Your task to perform on an android device: snooze an email in the gmail app Image 0: 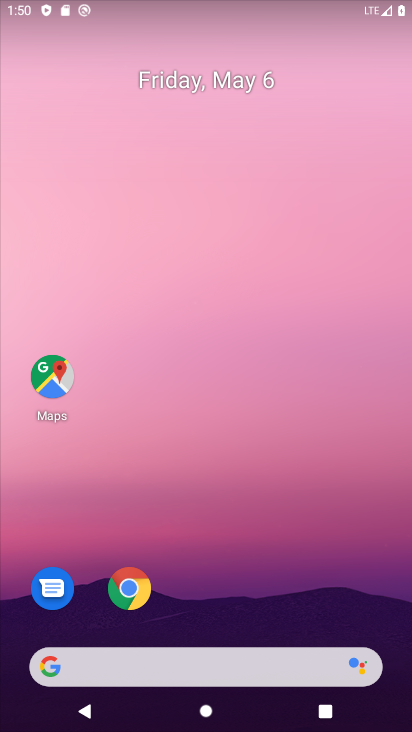
Step 0: drag from (348, 584) to (342, 82)
Your task to perform on an android device: snooze an email in the gmail app Image 1: 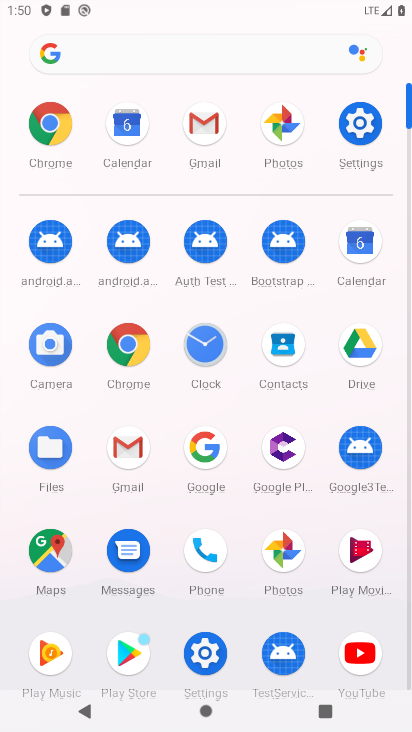
Step 1: click (128, 449)
Your task to perform on an android device: snooze an email in the gmail app Image 2: 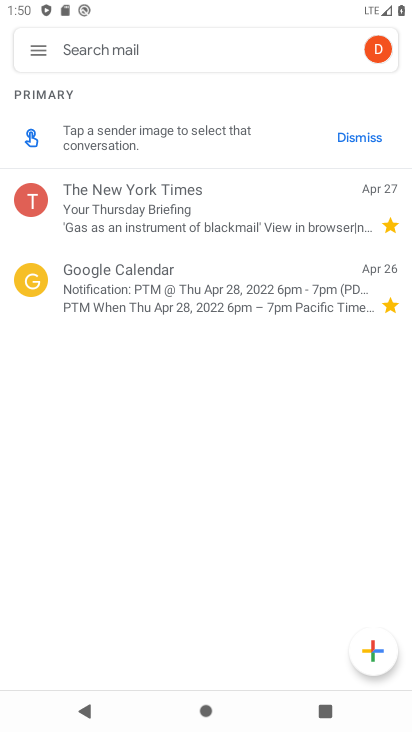
Step 2: click (40, 55)
Your task to perform on an android device: snooze an email in the gmail app Image 3: 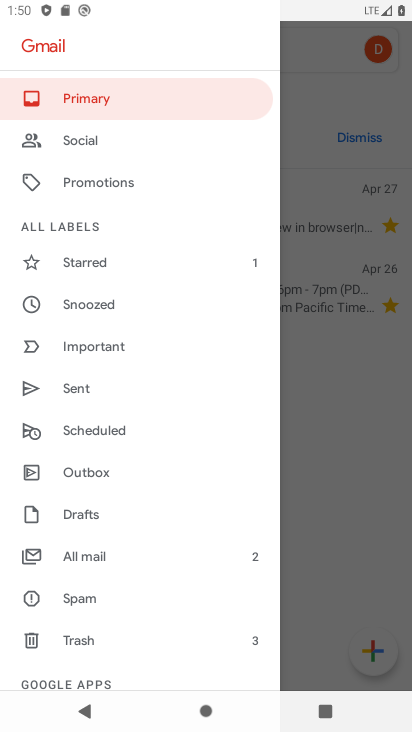
Step 3: click (116, 308)
Your task to perform on an android device: snooze an email in the gmail app Image 4: 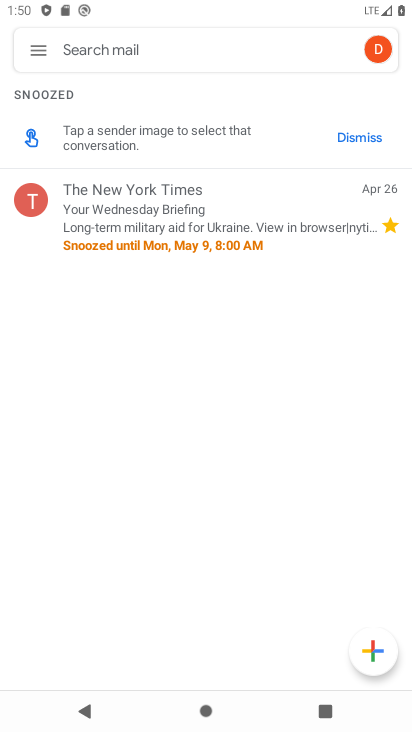
Step 4: task complete